Your task to perform on an android device: Open my contact list Image 0: 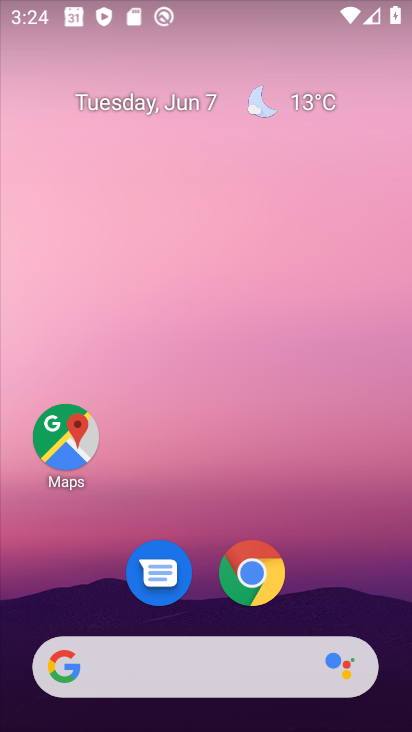
Step 0: drag from (376, 592) to (227, 117)
Your task to perform on an android device: Open my contact list Image 1: 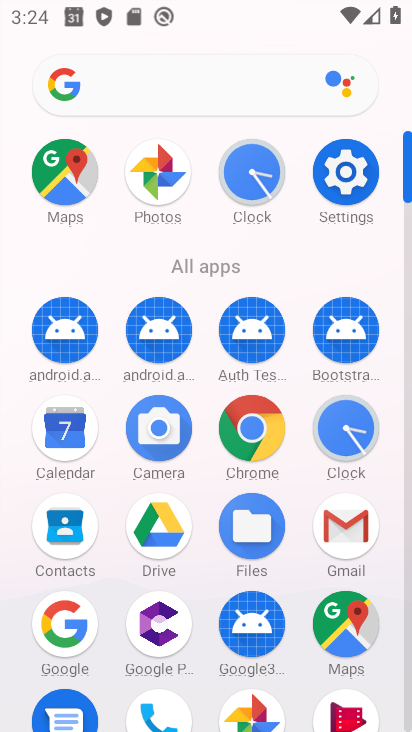
Step 1: click (67, 514)
Your task to perform on an android device: Open my contact list Image 2: 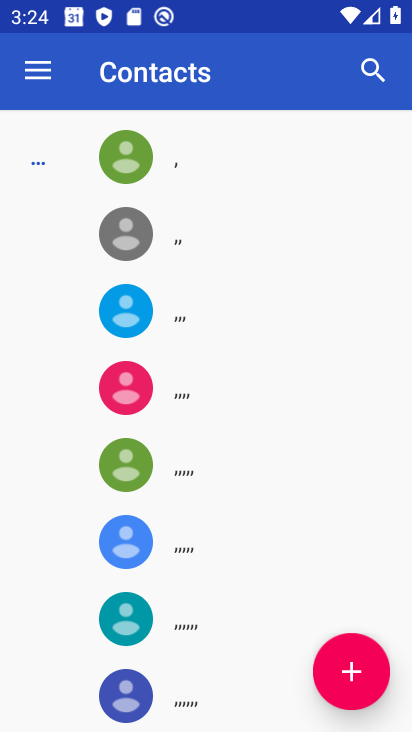
Step 2: task complete